Your task to perform on an android device: turn off airplane mode Image 0: 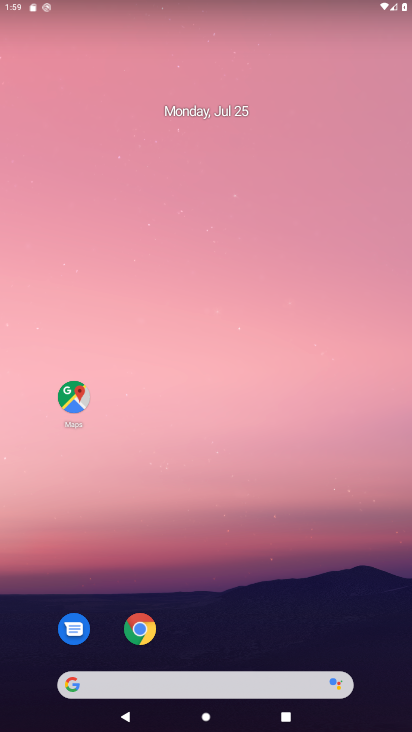
Step 0: drag from (344, 622) to (393, 16)
Your task to perform on an android device: turn off airplane mode Image 1: 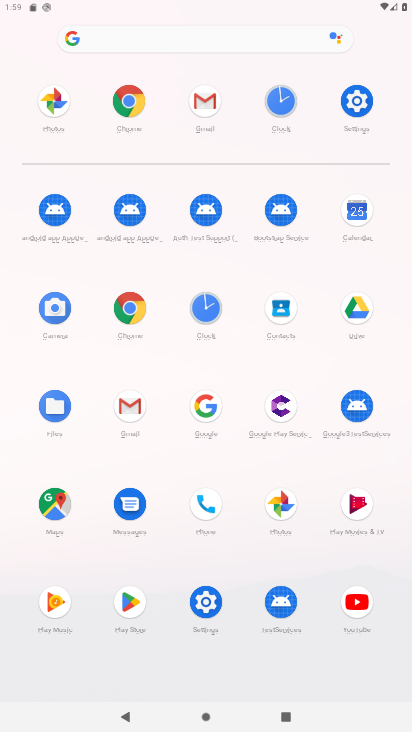
Step 1: click (364, 106)
Your task to perform on an android device: turn off airplane mode Image 2: 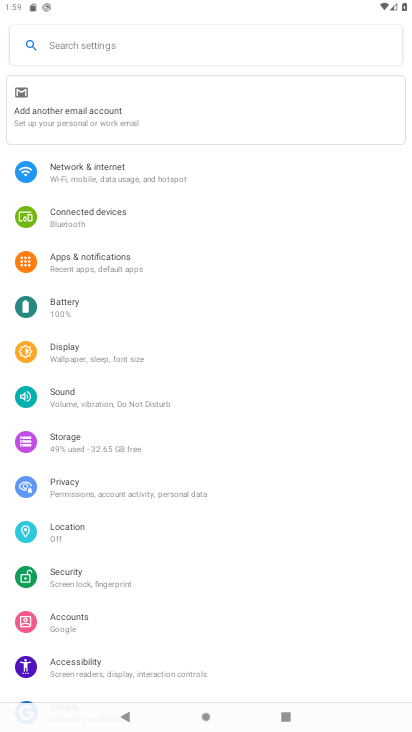
Step 2: click (67, 176)
Your task to perform on an android device: turn off airplane mode Image 3: 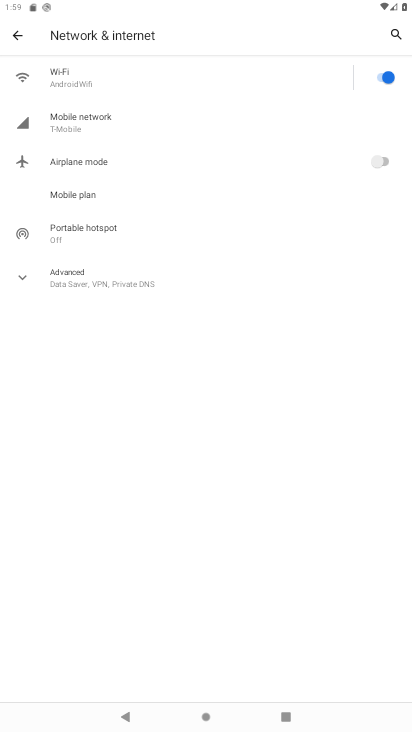
Step 3: task complete